Your task to perform on an android device: delete a single message in the gmail app Image 0: 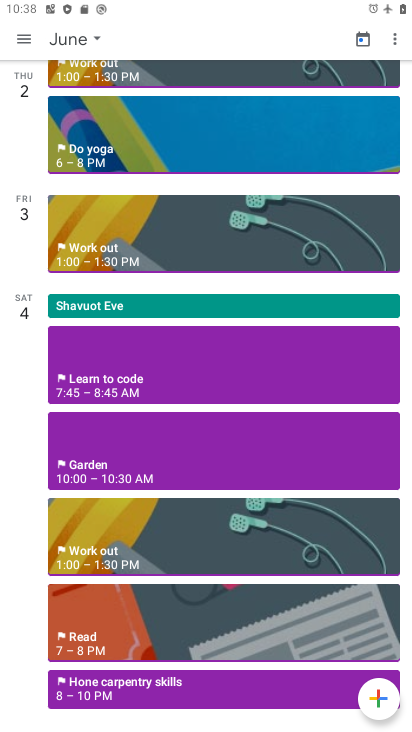
Step 0: press home button
Your task to perform on an android device: delete a single message in the gmail app Image 1: 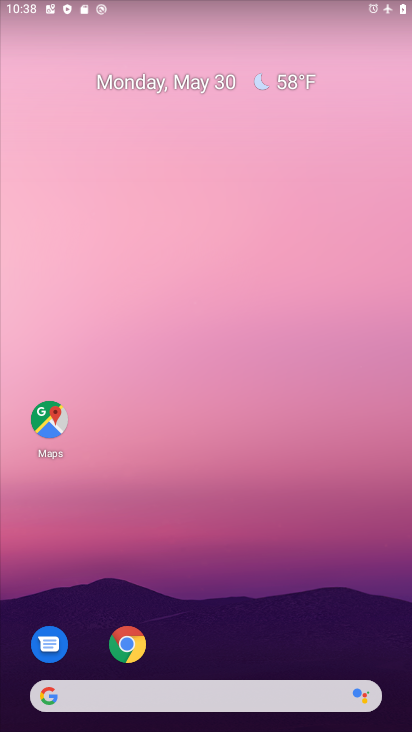
Step 1: drag from (360, 651) to (362, 115)
Your task to perform on an android device: delete a single message in the gmail app Image 2: 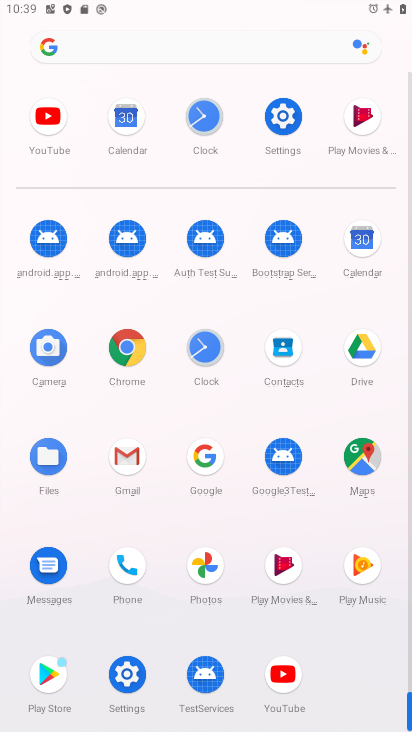
Step 2: click (124, 454)
Your task to perform on an android device: delete a single message in the gmail app Image 3: 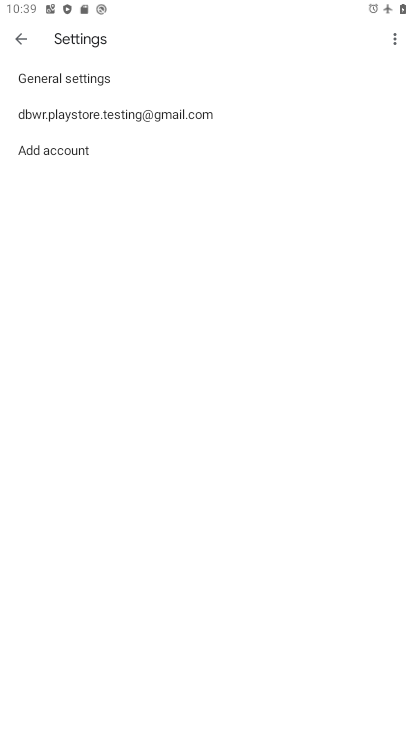
Step 3: press back button
Your task to perform on an android device: delete a single message in the gmail app Image 4: 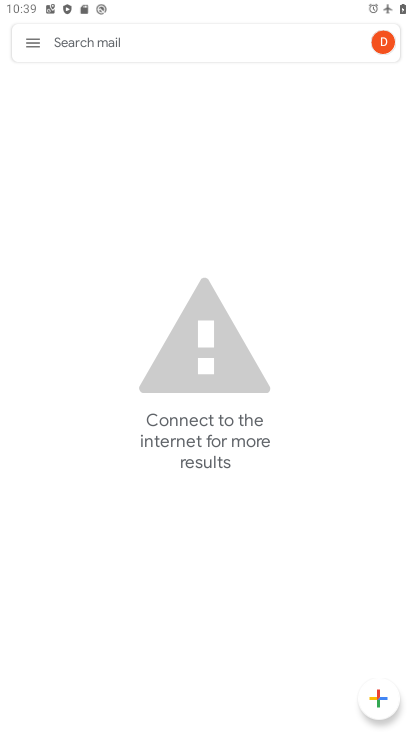
Step 4: click (31, 41)
Your task to perform on an android device: delete a single message in the gmail app Image 5: 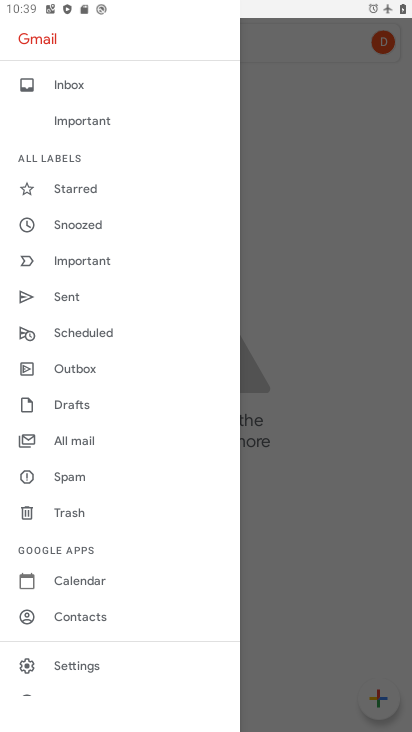
Step 5: click (75, 431)
Your task to perform on an android device: delete a single message in the gmail app Image 6: 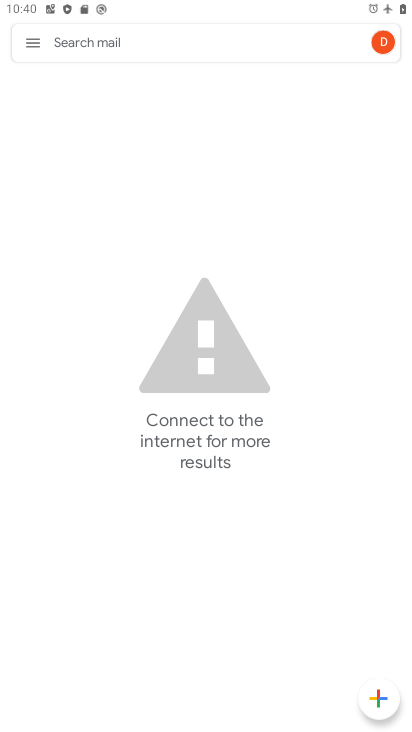
Step 6: task complete